Your task to perform on an android device: Is it going to rain this weekend? Image 0: 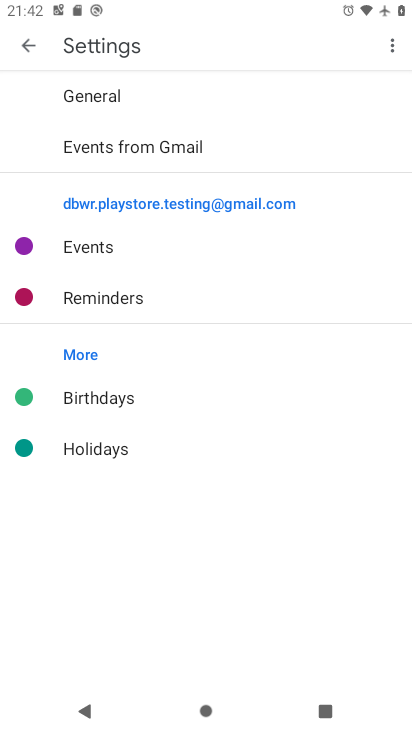
Step 0: press home button
Your task to perform on an android device: Is it going to rain this weekend? Image 1: 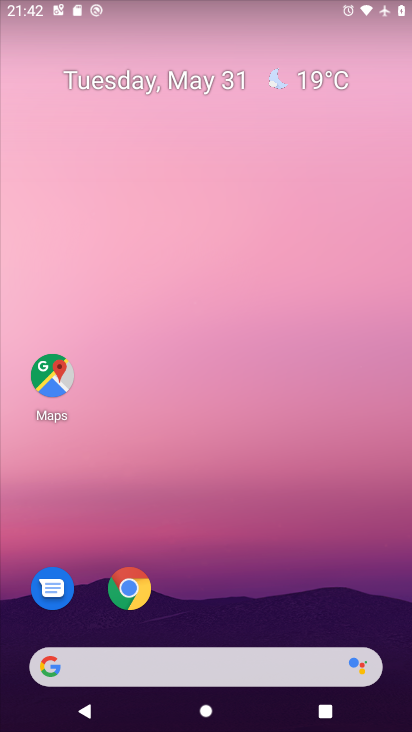
Step 1: click (303, 77)
Your task to perform on an android device: Is it going to rain this weekend? Image 2: 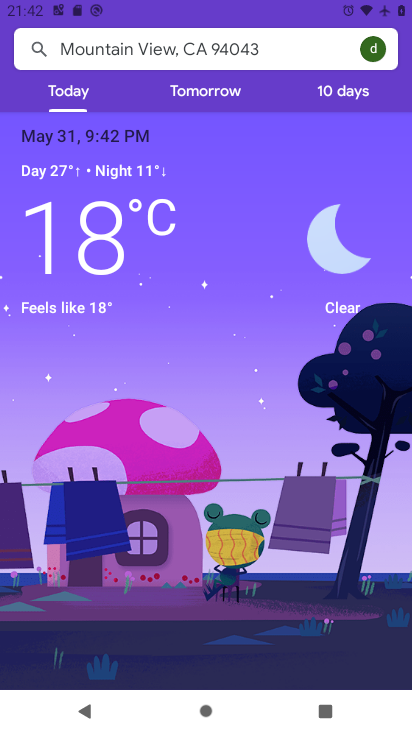
Step 2: click (352, 87)
Your task to perform on an android device: Is it going to rain this weekend? Image 3: 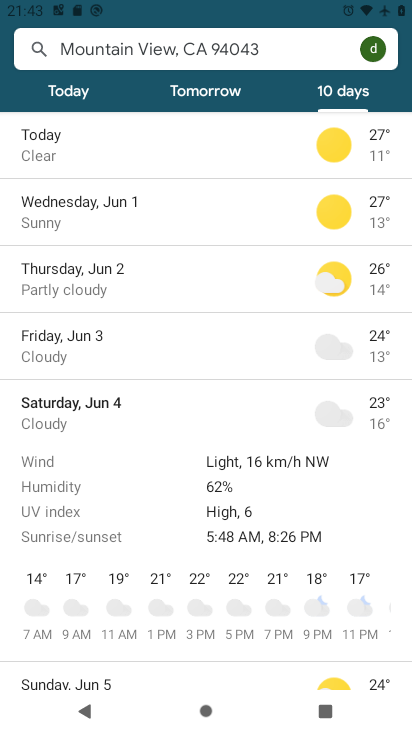
Step 3: task complete